Your task to perform on an android device: Open ESPN.com Image 0: 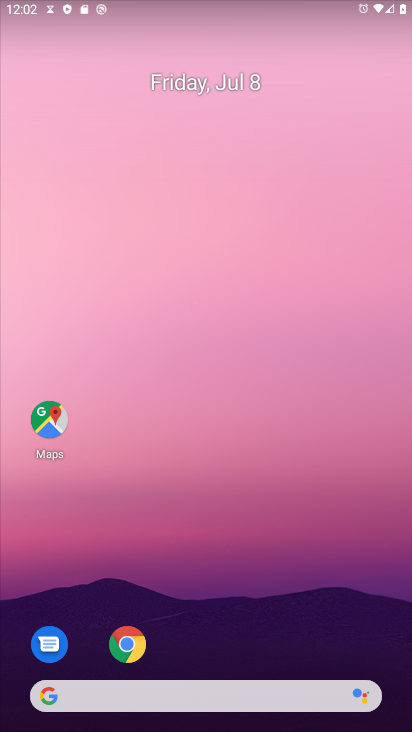
Step 0: click (134, 643)
Your task to perform on an android device: Open ESPN.com Image 1: 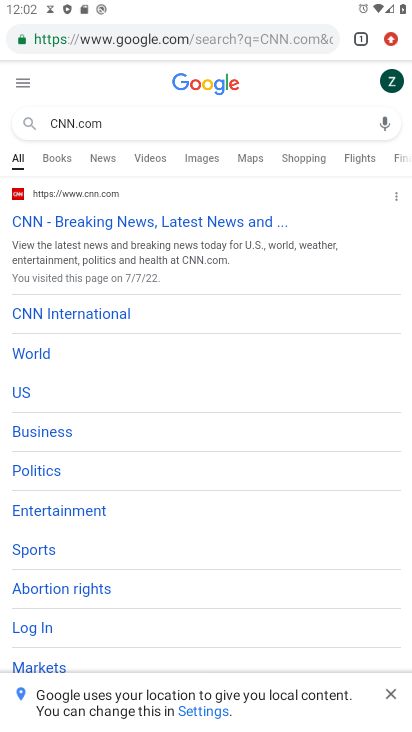
Step 1: click (189, 34)
Your task to perform on an android device: Open ESPN.com Image 2: 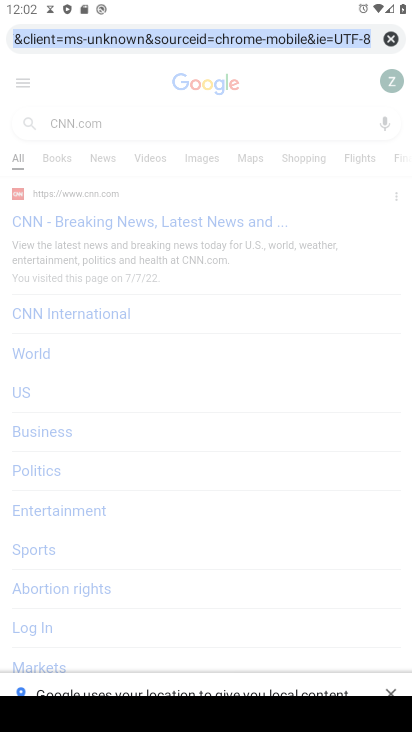
Step 2: type "ESPN.com"
Your task to perform on an android device: Open ESPN.com Image 3: 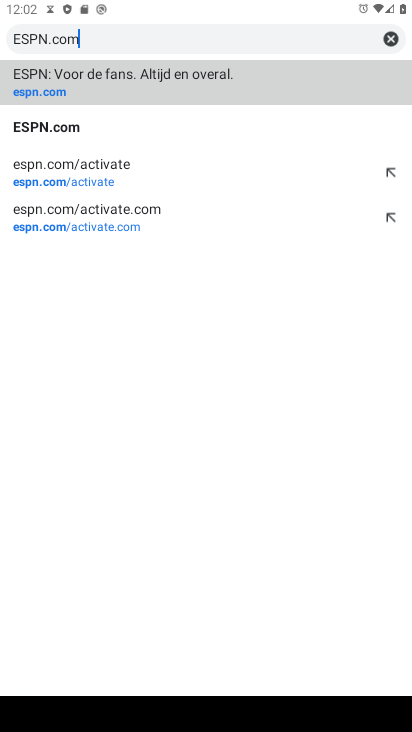
Step 3: click (78, 99)
Your task to perform on an android device: Open ESPN.com Image 4: 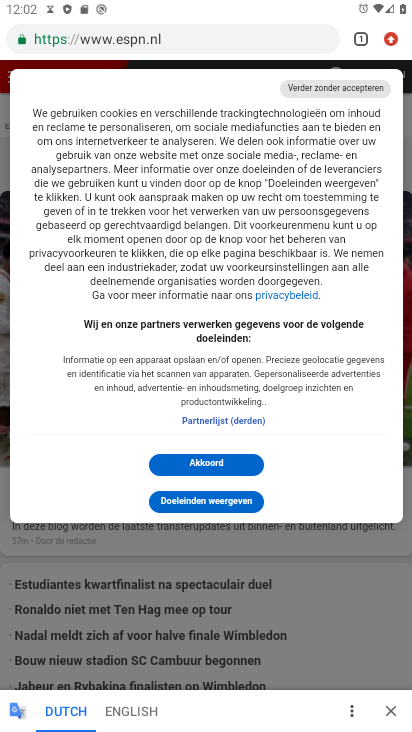
Step 4: task complete